Your task to perform on an android device: Open calendar and show me the third week of next month Image 0: 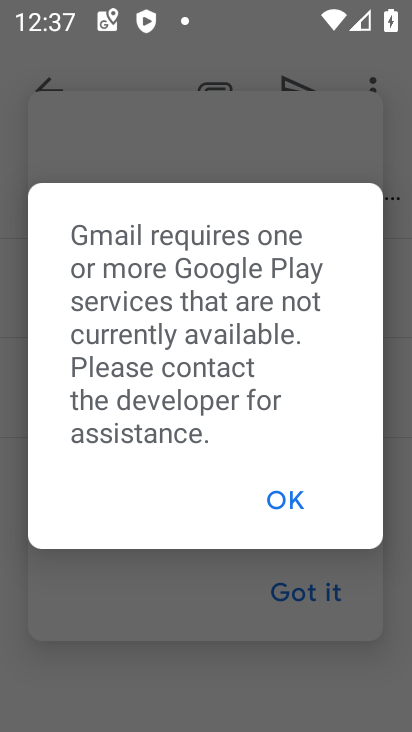
Step 0: press home button
Your task to perform on an android device: Open calendar and show me the third week of next month Image 1: 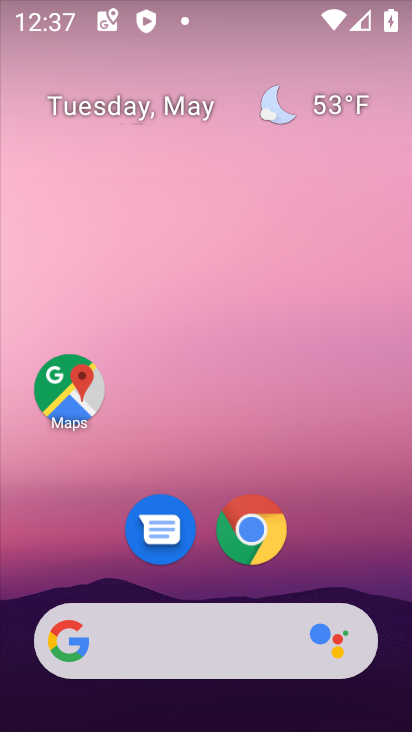
Step 1: drag from (212, 713) to (210, 157)
Your task to perform on an android device: Open calendar and show me the third week of next month Image 2: 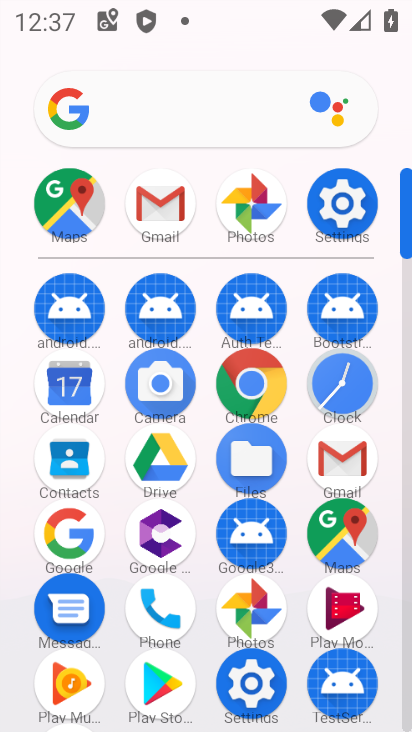
Step 2: click (63, 391)
Your task to perform on an android device: Open calendar and show me the third week of next month Image 3: 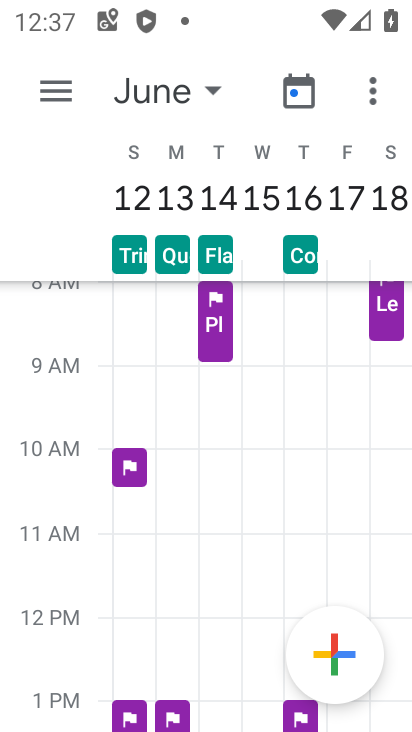
Step 3: click (216, 85)
Your task to perform on an android device: Open calendar and show me the third week of next month Image 4: 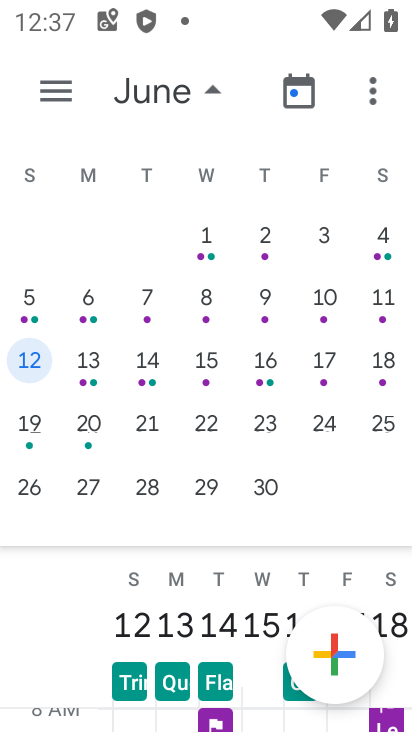
Step 4: click (90, 416)
Your task to perform on an android device: Open calendar and show me the third week of next month Image 5: 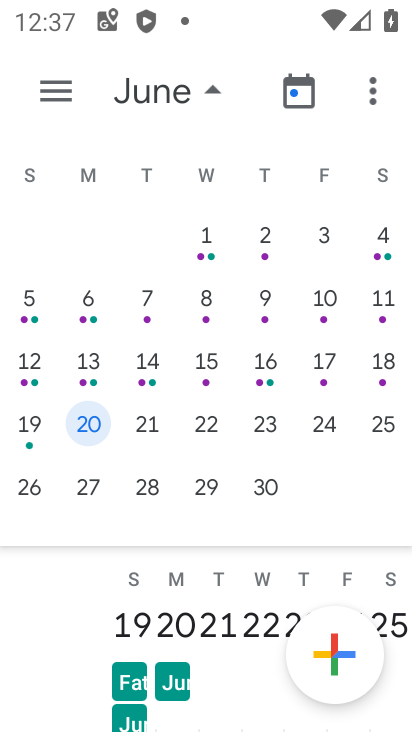
Step 5: click (211, 89)
Your task to perform on an android device: Open calendar and show me the third week of next month Image 6: 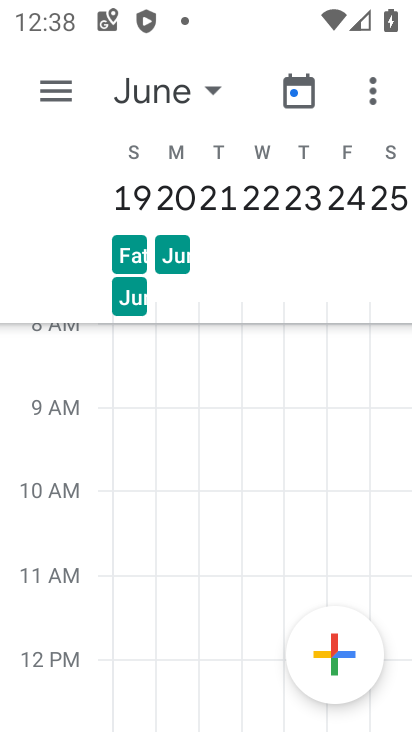
Step 6: task complete